Your task to perform on an android device: Search for sushi restaurants on Maps Image 0: 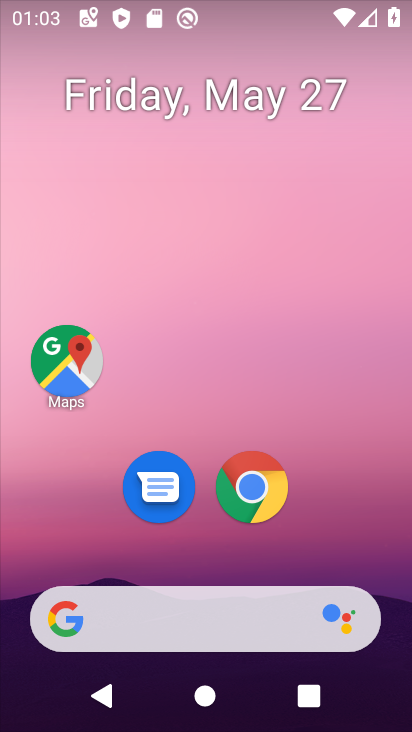
Step 0: click (69, 349)
Your task to perform on an android device: Search for sushi restaurants on Maps Image 1: 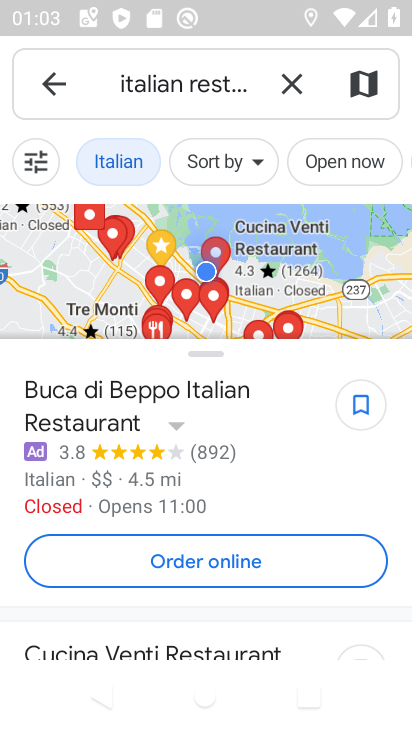
Step 1: click (280, 91)
Your task to perform on an android device: Search for sushi restaurants on Maps Image 2: 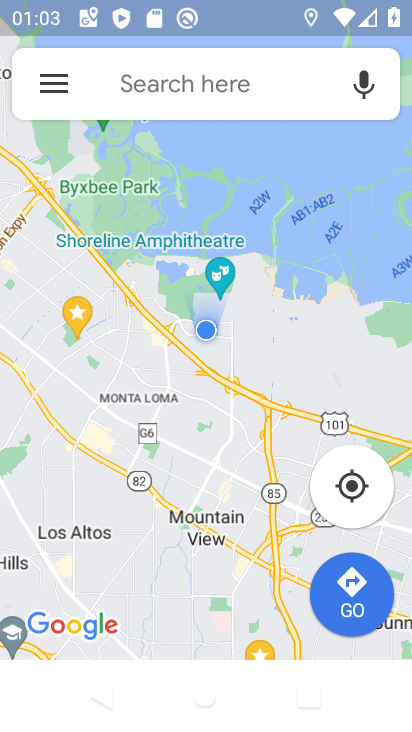
Step 2: type "sushi restaurants"
Your task to perform on an android device: Search for sushi restaurants on Maps Image 3: 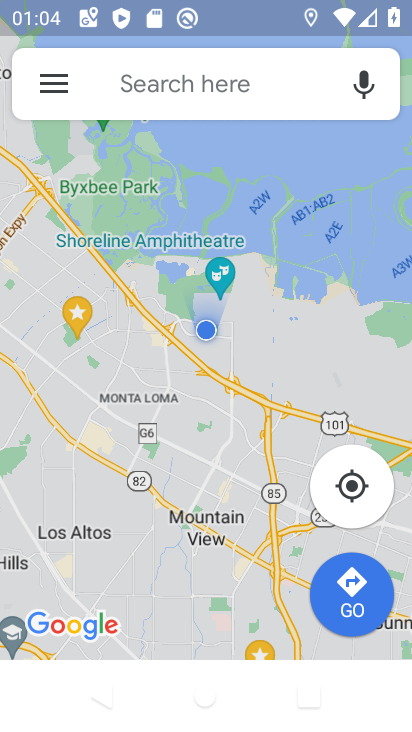
Step 3: click (162, 87)
Your task to perform on an android device: Search for sushi restaurants on Maps Image 4: 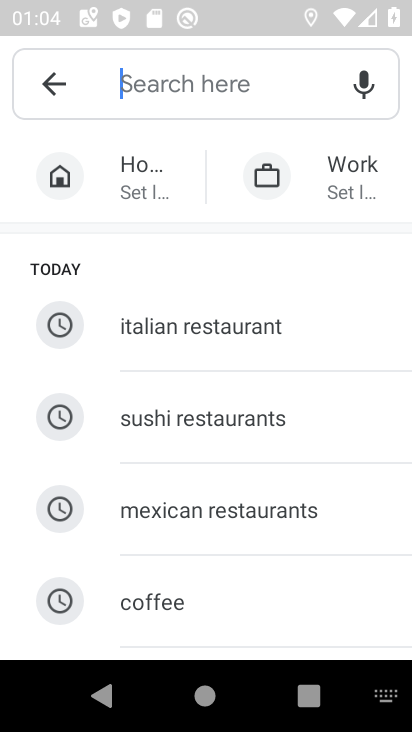
Step 4: click (252, 427)
Your task to perform on an android device: Search for sushi restaurants on Maps Image 5: 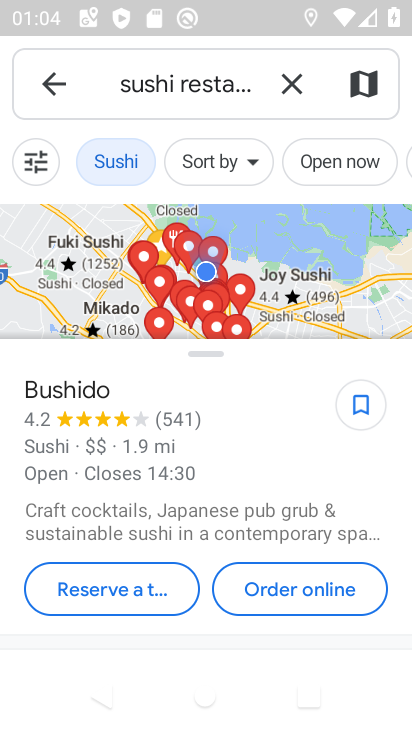
Step 5: task complete